Your task to perform on an android device: Open Maps and search for coffee Image 0: 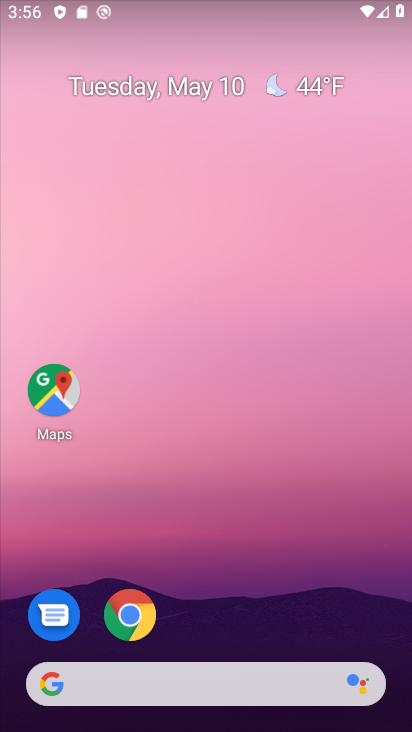
Step 0: drag from (249, 727) to (251, 133)
Your task to perform on an android device: Open Maps and search for coffee Image 1: 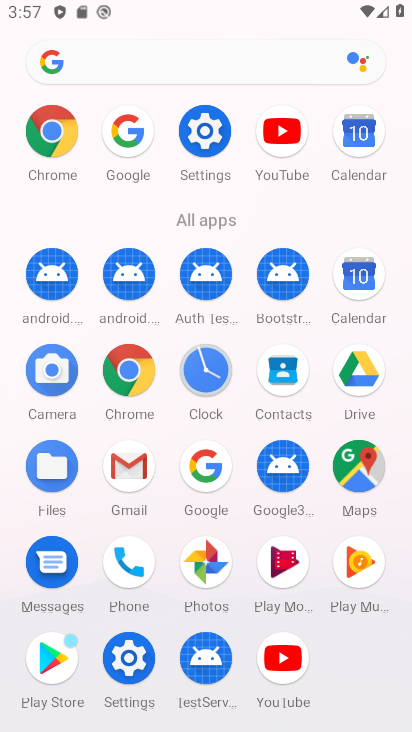
Step 1: click (359, 469)
Your task to perform on an android device: Open Maps and search for coffee Image 2: 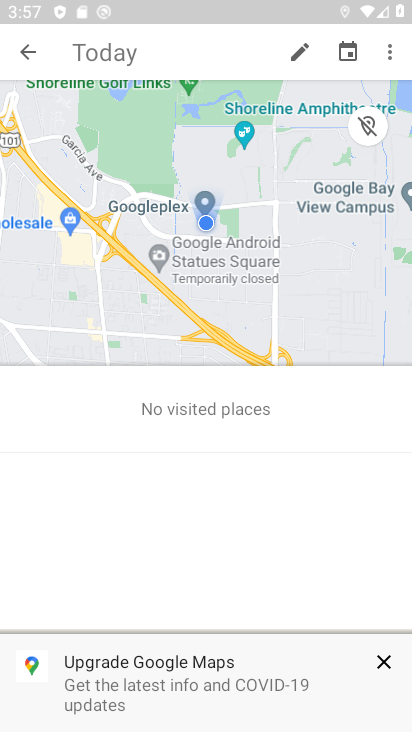
Step 2: click (27, 48)
Your task to perform on an android device: Open Maps and search for coffee Image 3: 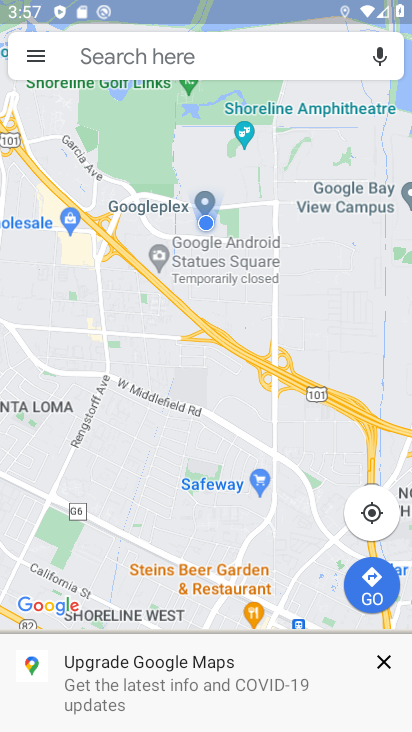
Step 3: click (152, 60)
Your task to perform on an android device: Open Maps and search for coffee Image 4: 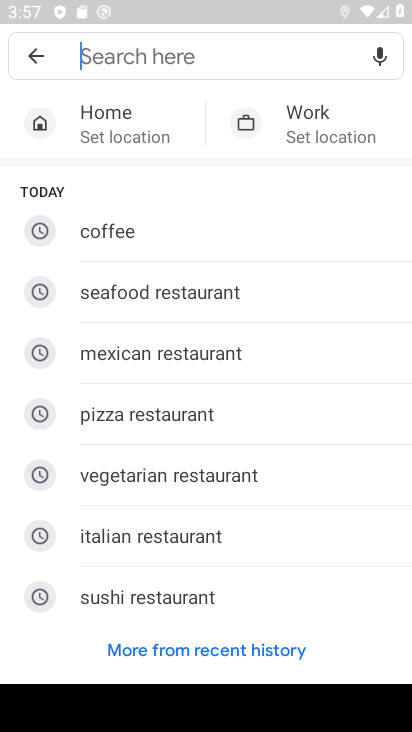
Step 4: type "coffee"
Your task to perform on an android device: Open Maps and search for coffee Image 5: 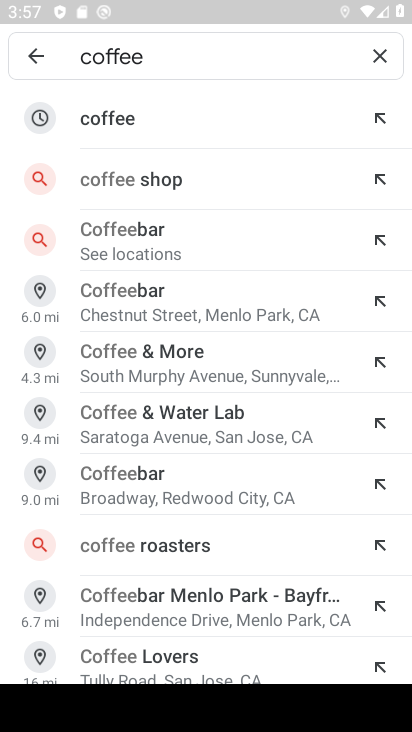
Step 5: click (141, 118)
Your task to perform on an android device: Open Maps and search for coffee Image 6: 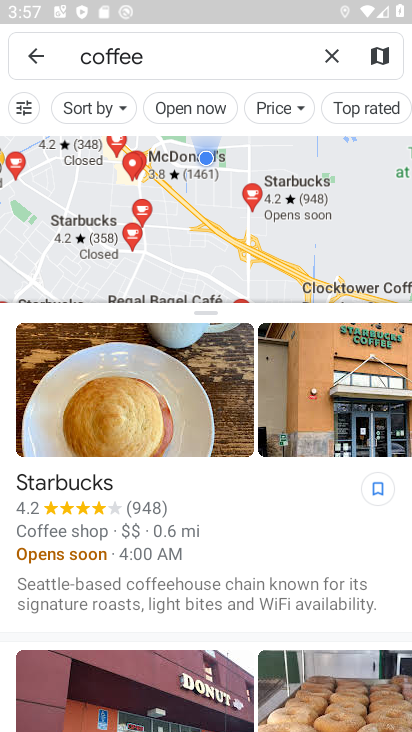
Step 6: task complete